Your task to perform on an android device: Open calendar and show me the fourth week of next month Image 0: 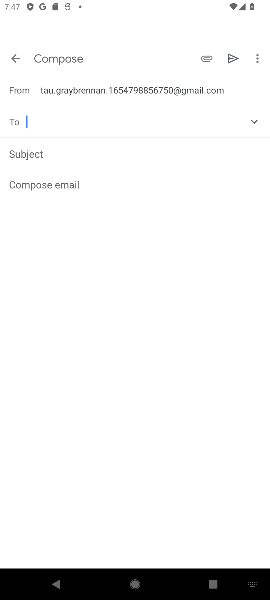
Step 0: press home button
Your task to perform on an android device: Open calendar and show me the fourth week of next month Image 1: 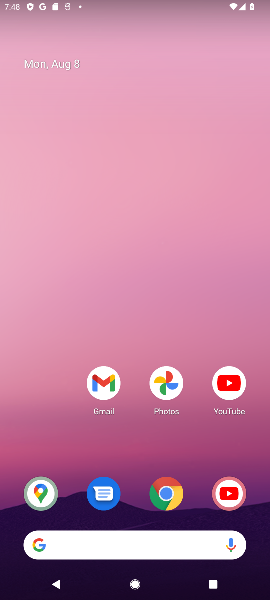
Step 1: drag from (156, 535) to (57, 6)
Your task to perform on an android device: Open calendar and show me the fourth week of next month Image 2: 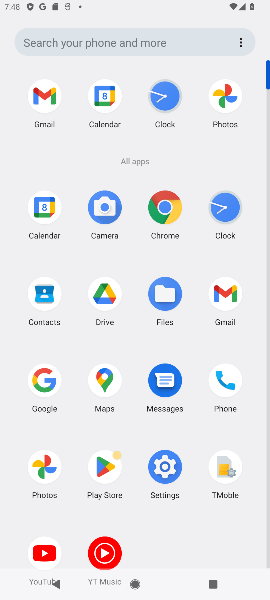
Step 2: click (40, 214)
Your task to perform on an android device: Open calendar and show me the fourth week of next month Image 3: 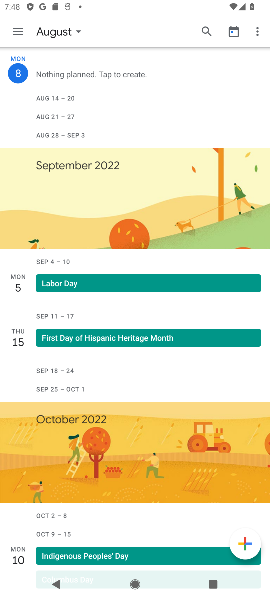
Step 3: click (16, 36)
Your task to perform on an android device: Open calendar and show me the fourth week of next month Image 4: 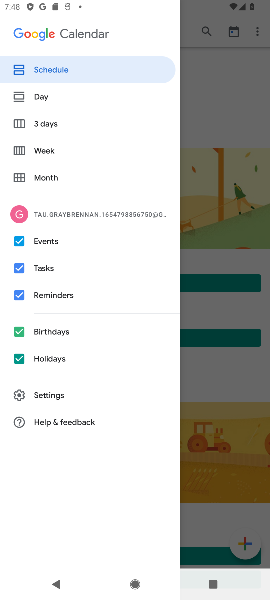
Step 4: click (43, 180)
Your task to perform on an android device: Open calendar and show me the fourth week of next month Image 5: 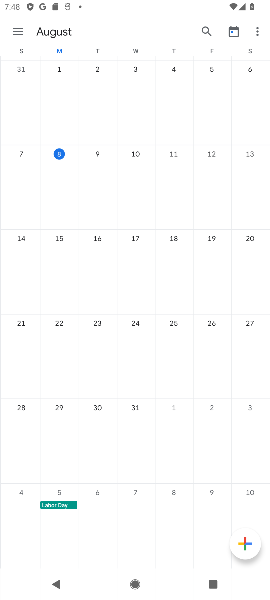
Step 5: task complete